Your task to perform on an android device: Go to Google maps Image 0: 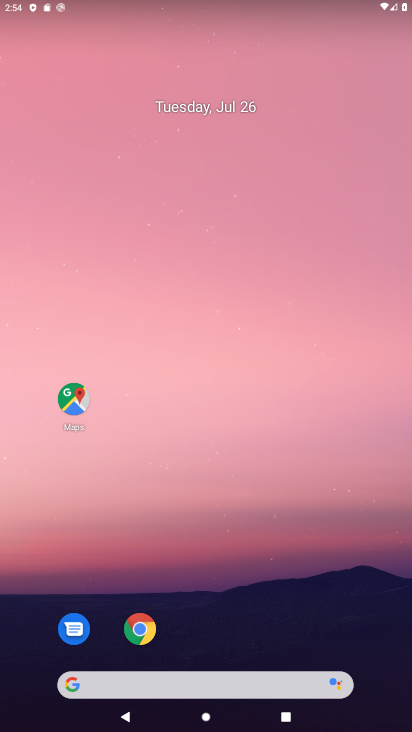
Step 0: drag from (223, 724) to (216, 140)
Your task to perform on an android device: Go to Google maps Image 1: 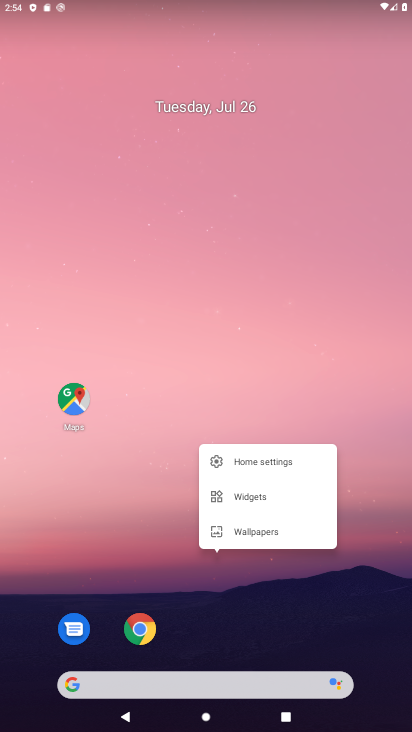
Step 1: click (269, 347)
Your task to perform on an android device: Go to Google maps Image 2: 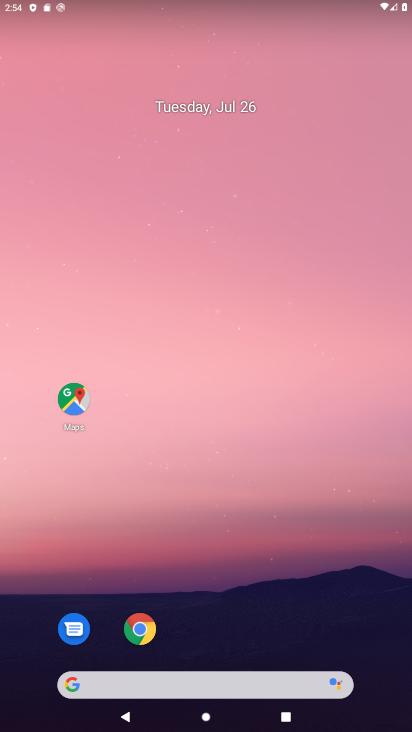
Step 2: drag from (221, 686) to (243, 95)
Your task to perform on an android device: Go to Google maps Image 3: 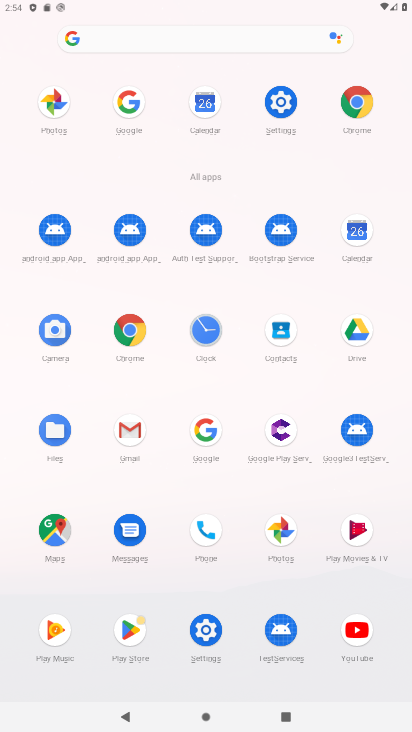
Step 3: click (57, 529)
Your task to perform on an android device: Go to Google maps Image 4: 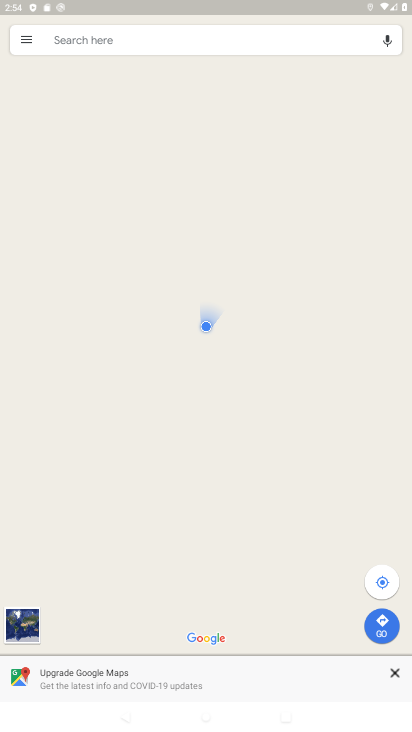
Step 4: task complete